Your task to perform on an android device: toggle notification dots Image 0: 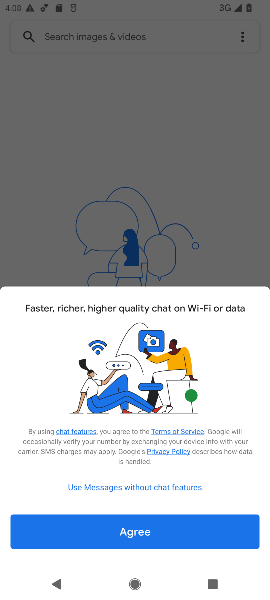
Step 0: press home button
Your task to perform on an android device: toggle notification dots Image 1: 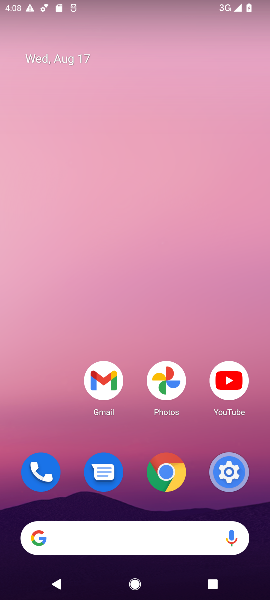
Step 1: drag from (130, 462) to (162, 133)
Your task to perform on an android device: toggle notification dots Image 2: 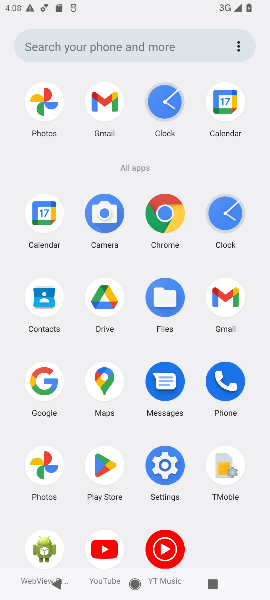
Step 2: click (169, 474)
Your task to perform on an android device: toggle notification dots Image 3: 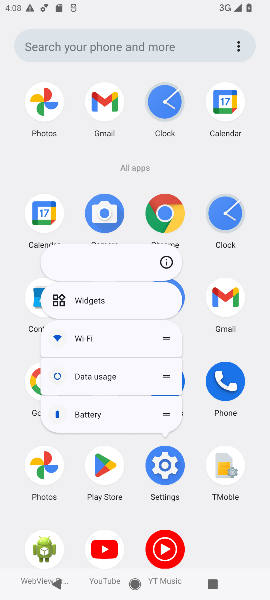
Step 3: click (167, 478)
Your task to perform on an android device: toggle notification dots Image 4: 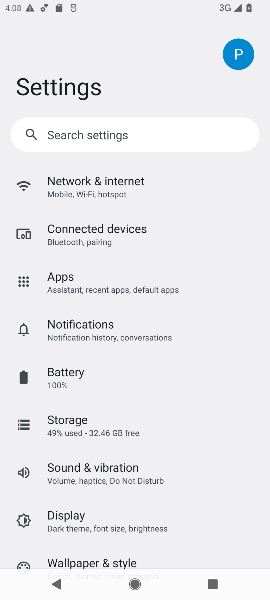
Step 4: click (113, 332)
Your task to perform on an android device: toggle notification dots Image 5: 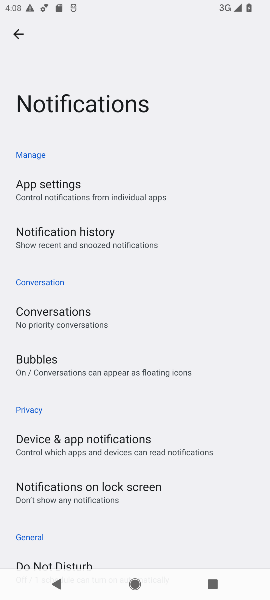
Step 5: drag from (117, 508) to (140, 232)
Your task to perform on an android device: toggle notification dots Image 6: 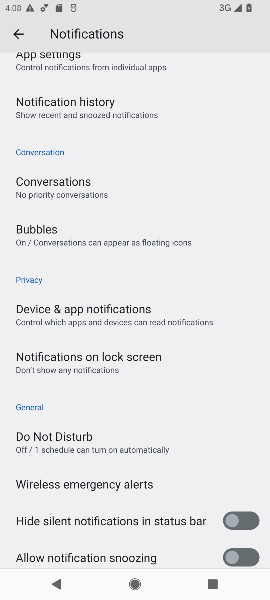
Step 6: drag from (105, 507) to (127, 311)
Your task to perform on an android device: toggle notification dots Image 7: 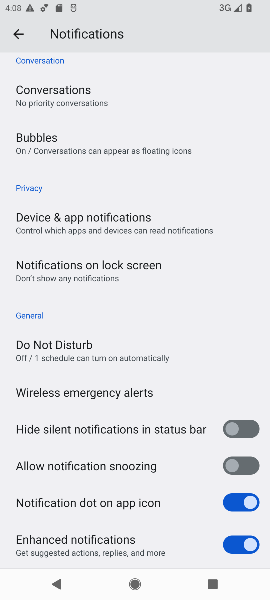
Step 7: click (215, 501)
Your task to perform on an android device: toggle notification dots Image 8: 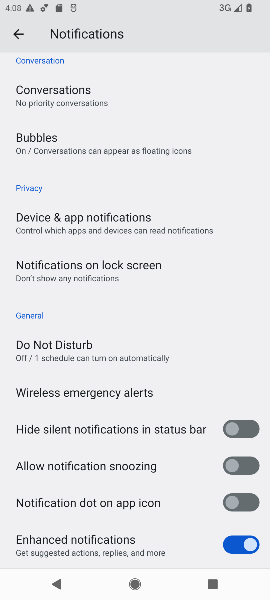
Step 8: task complete